Your task to perform on an android device: Play the last video I watched on Youtube Image 0: 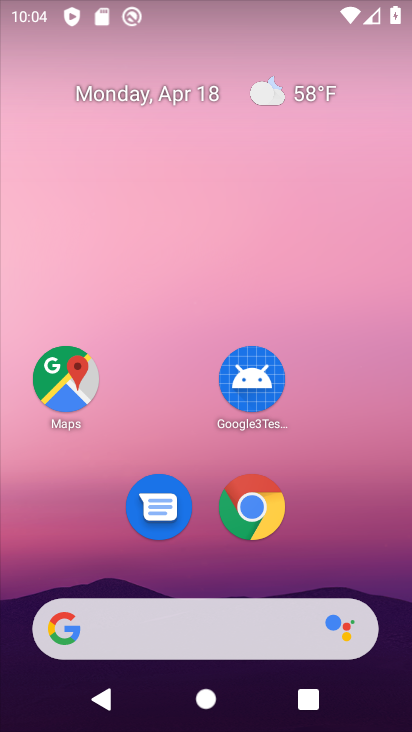
Step 0: drag from (157, 571) to (278, 5)
Your task to perform on an android device: Play the last video I watched on Youtube Image 1: 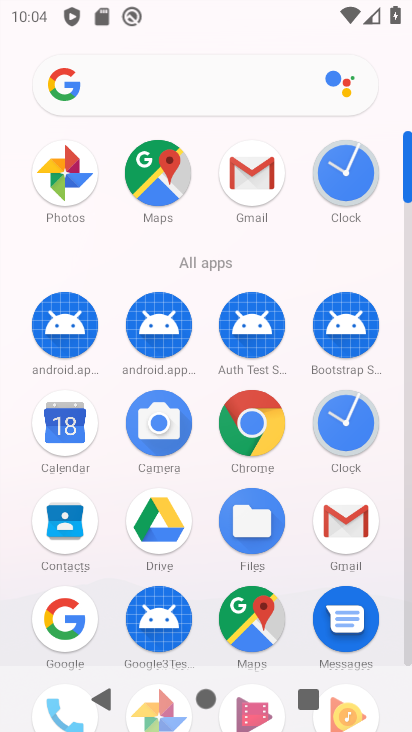
Step 1: drag from (265, 668) to (340, 245)
Your task to perform on an android device: Play the last video I watched on Youtube Image 2: 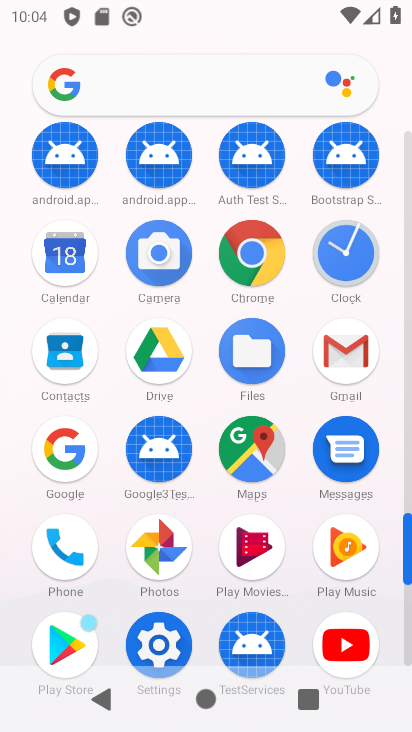
Step 2: click (348, 647)
Your task to perform on an android device: Play the last video I watched on Youtube Image 3: 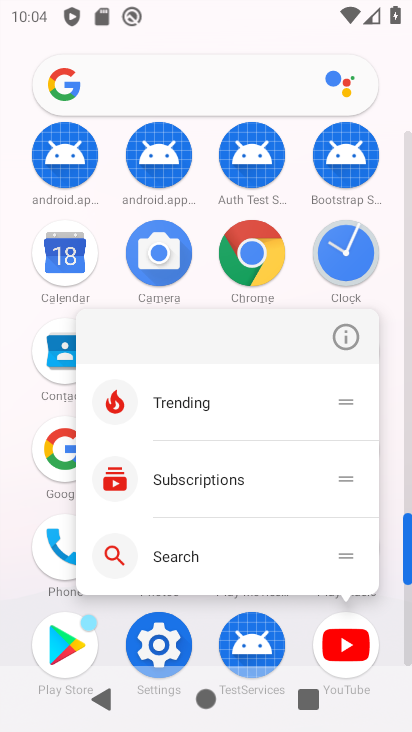
Step 3: click (353, 650)
Your task to perform on an android device: Play the last video I watched on Youtube Image 4: 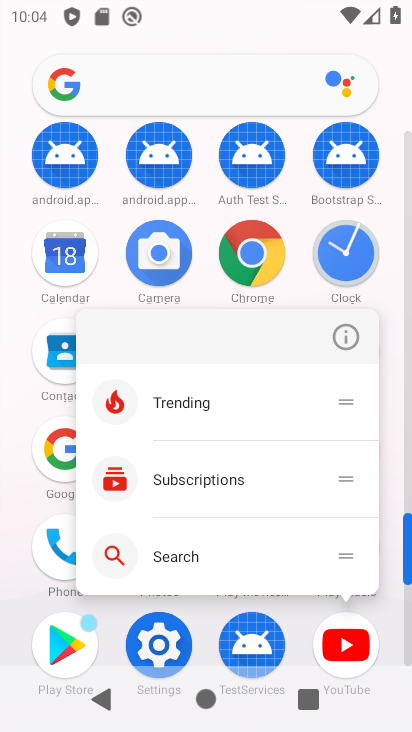
Step 4: click (344, 671)
Your task to perform on an android device: Play the last video I watched on Youtube Image 5: 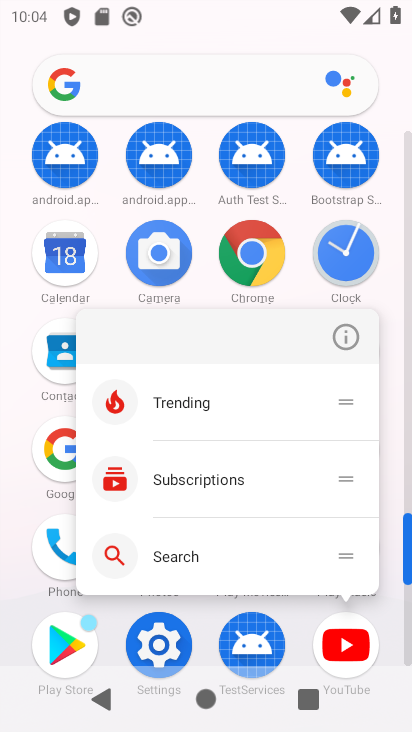
Step 5: click (362, 649)
Your task to perform on an android device: Play the last video I watched on Youtube Image 6: 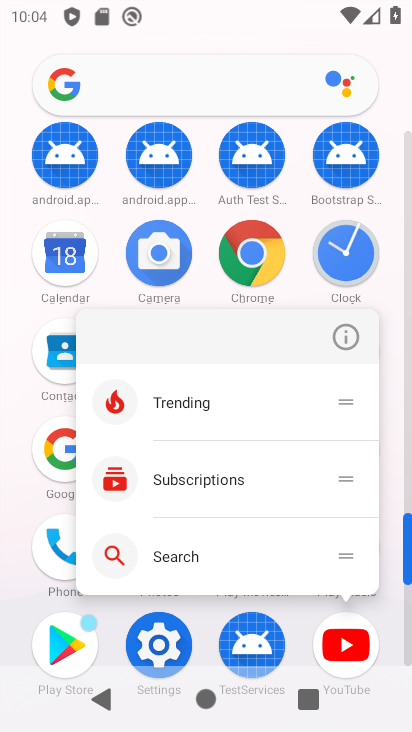
Step 6: click (340, 651)
Your task to perform on an android device: Play the last video I watched on Youtube Image 7: 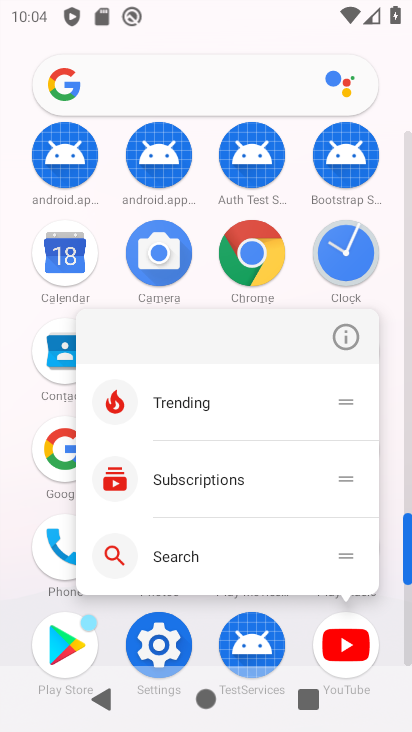
Step 7: click (349, 643)
Your task to perform on an android device: Play the last video I watched on Youtube Image 8: 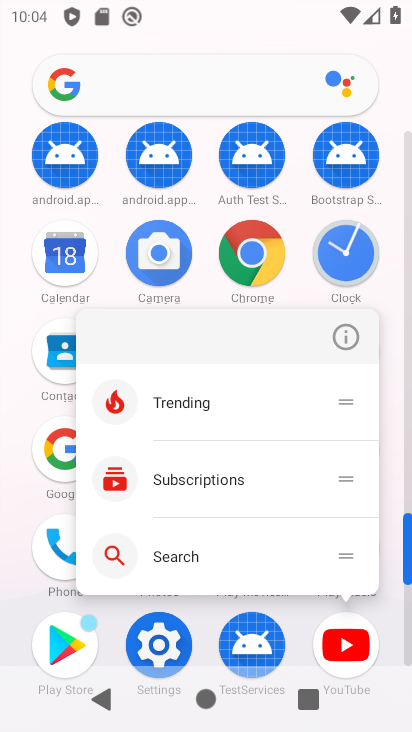
Step 8: click (343, 625)
Your task to perform on an android device: Play the last video I watched on Youtube Image 9: 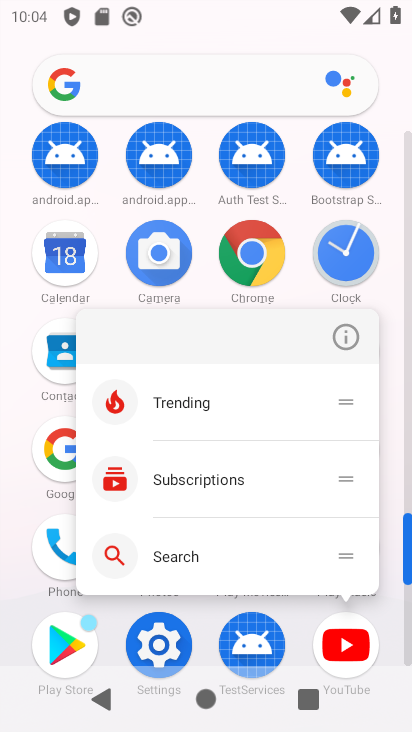
Step 9: click (335, 660)
Your task to perform on an android device: Play the last video I watched on Youtube Image 10: 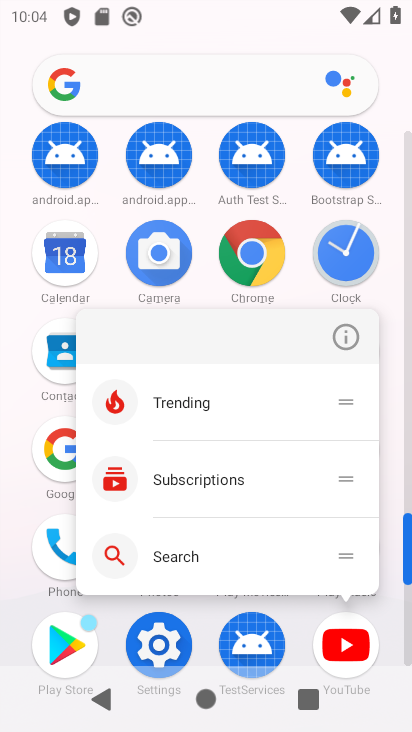
Step 10: click (363, 655)
Your task to perform on an android device: Play the last video I watched on Youtube Image 11: 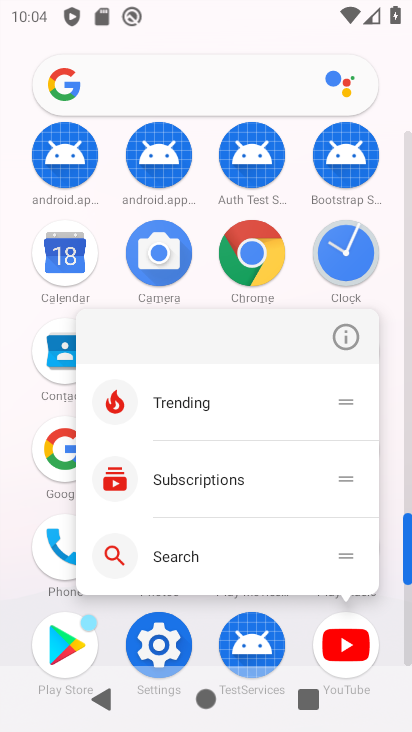
Step 11: click (355, 667)
Your task to perform on an android device: Play the last video I watched on Youtube Image 12: 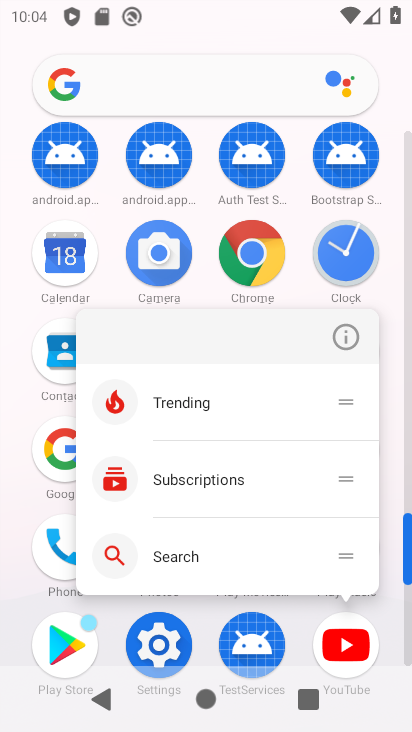
Step 12: click (358, 642)
Your task to perform on an android device: Play the last video I watched on Youtube Image 13: 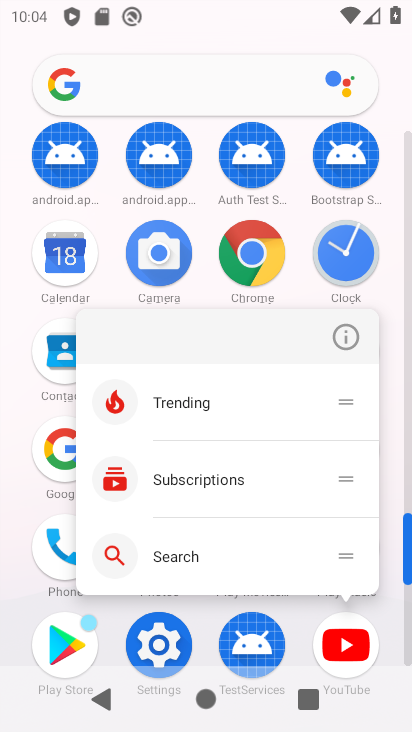
Step 13: click (342, 652)
Your task to perform on an android device: Play the last video I watched on Youtube Image 14: 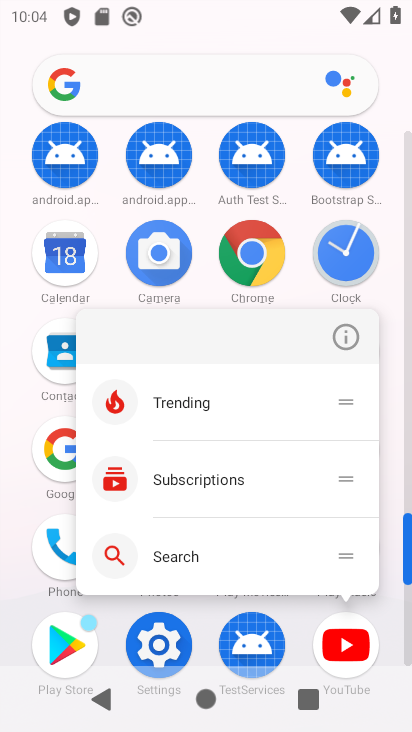
Step 14: click (366, 663)
Your task to perform on an android device: Play the last video I watched on Youtube Image 15: 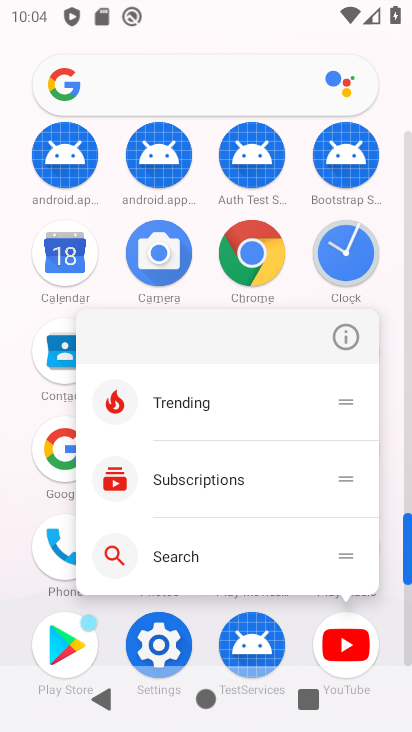
Step 15: click (353, 662)
Your task to perform on an android device: Play the last video I watched on Youtube Image 16: 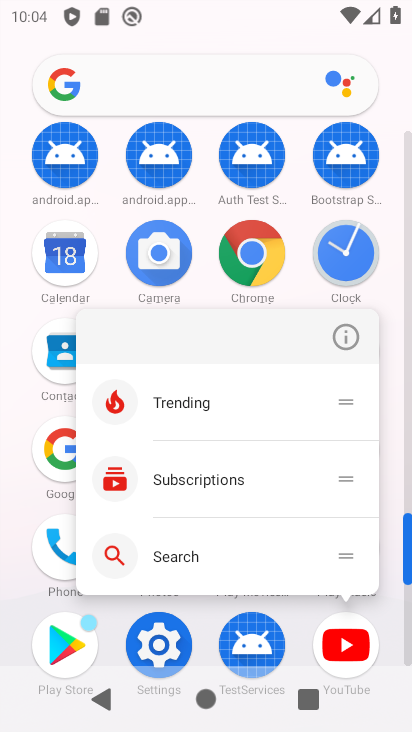
Step 16: click (347, 656)
Your task to perform on an android device: Play the last video I watched on Youtube Image 17: 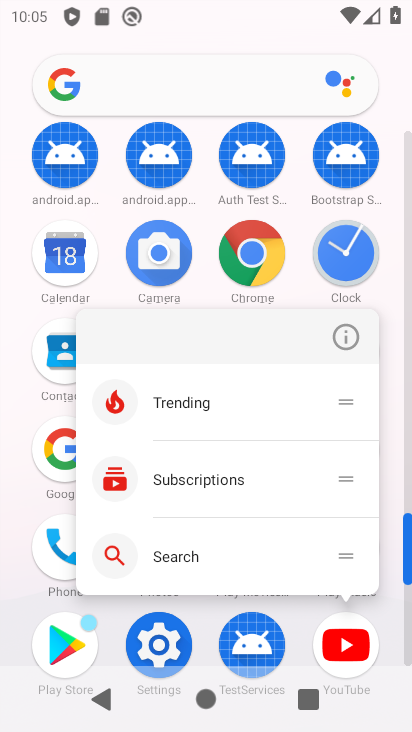
Step 17: click (333, 636)
Your task to perform on an android device: Play the last video I watched on Youtube Image 18: 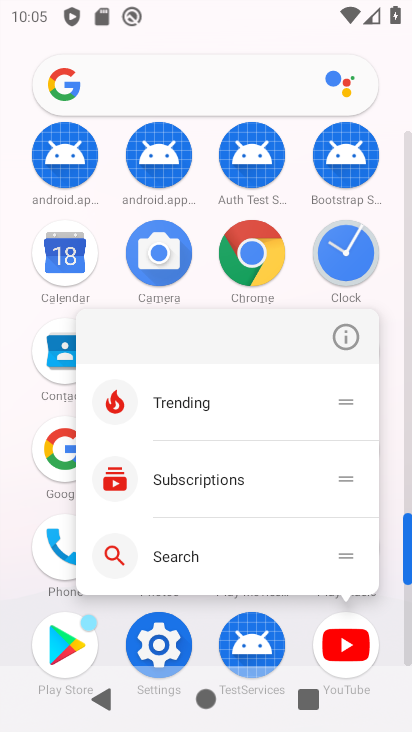
Step 18: click (362, 643)
Your task to perform on an android device: Play the last video I watched on Youtube Image 19: 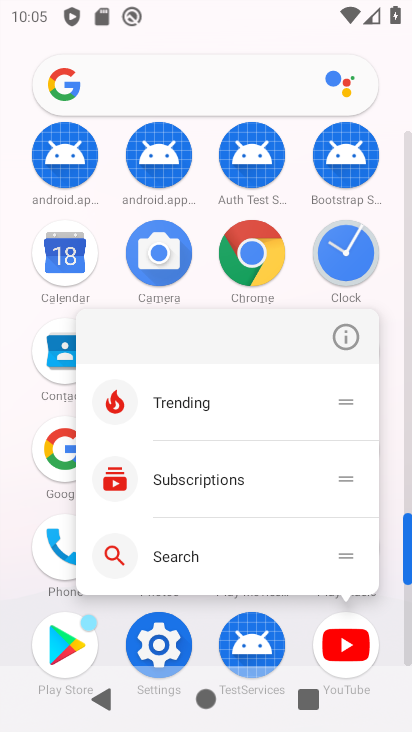
Step 19: click (353, 652)
Your task to perform on an android device: Play the last video I watched on Youtube Image 20: 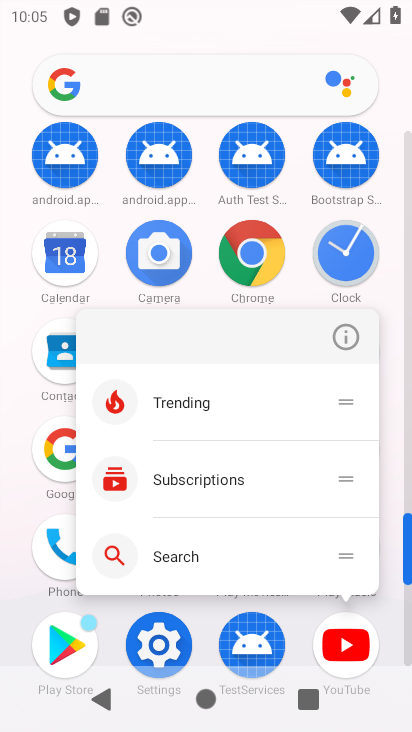
Step 20: click (352, 660)
Your task to perform on an android device: Play the last video I watched on Youtube Image 21: 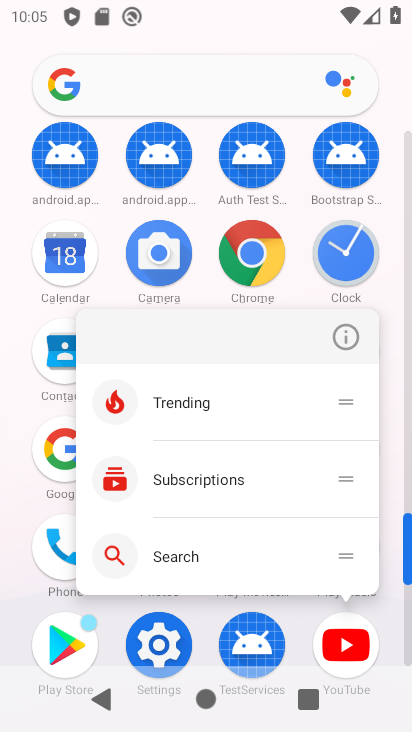
Step 21: click (356, 647)
Your task to perform on an android device: Play the last video I watched on Youtube Image 22: 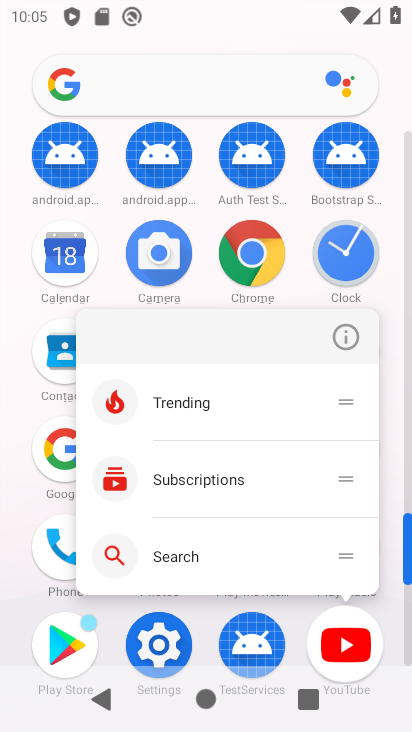
Step 22: click (361, 651)
Your task to perform on an android device: Play the last video I watched on Youtube Image 23: 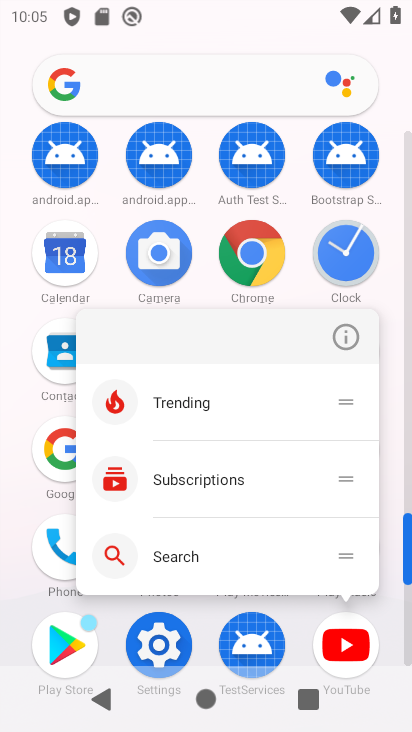
Step 23: click (361, 644)
Your task to perform on an android device: Play the last video I watched on Youtube Image 24: 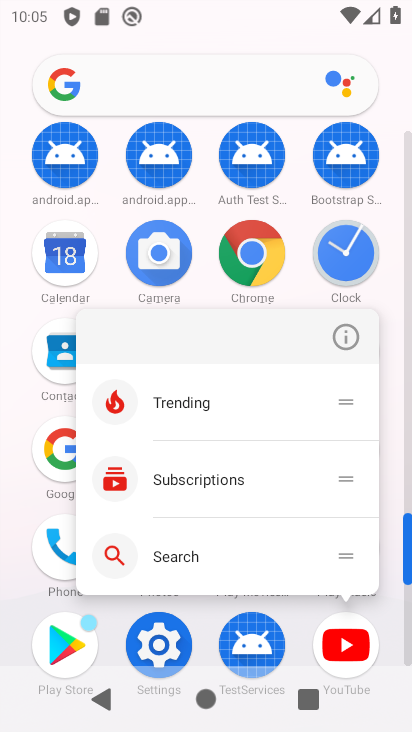
Step 24: click (351, 650)
Your task to perform on an android device: Play the last video I watched on Youtube Image 25: 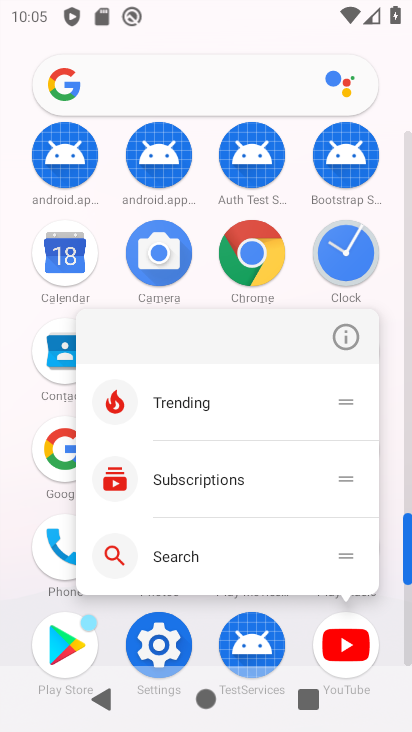
Step 25: click (338, 655)
Your task to perform on an android device: Play the last video I watched on Youtube Image 26: 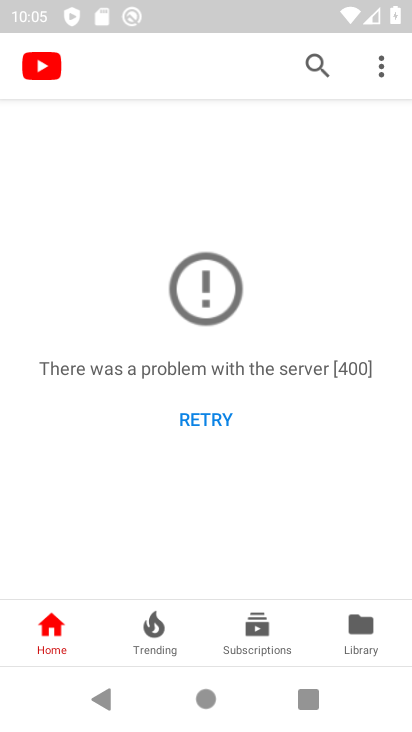
Step 26: click (360, 639)
Your task to perform on an android device: Play the last video I watched on Youtube Image 27: 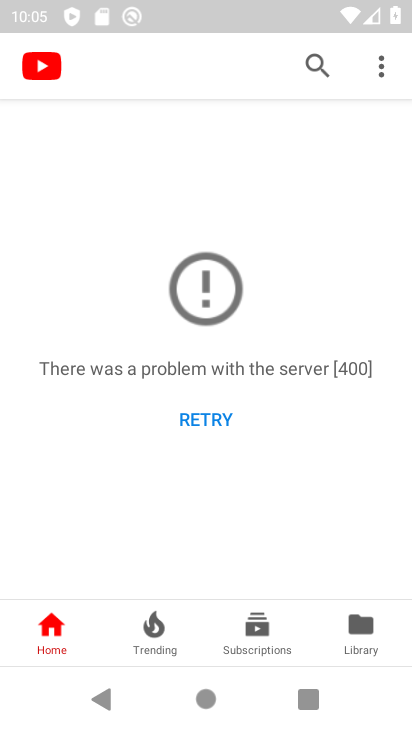
Step 27: task complete